Your task to perform on an android device: install app "Viber Messenger" Image 0: 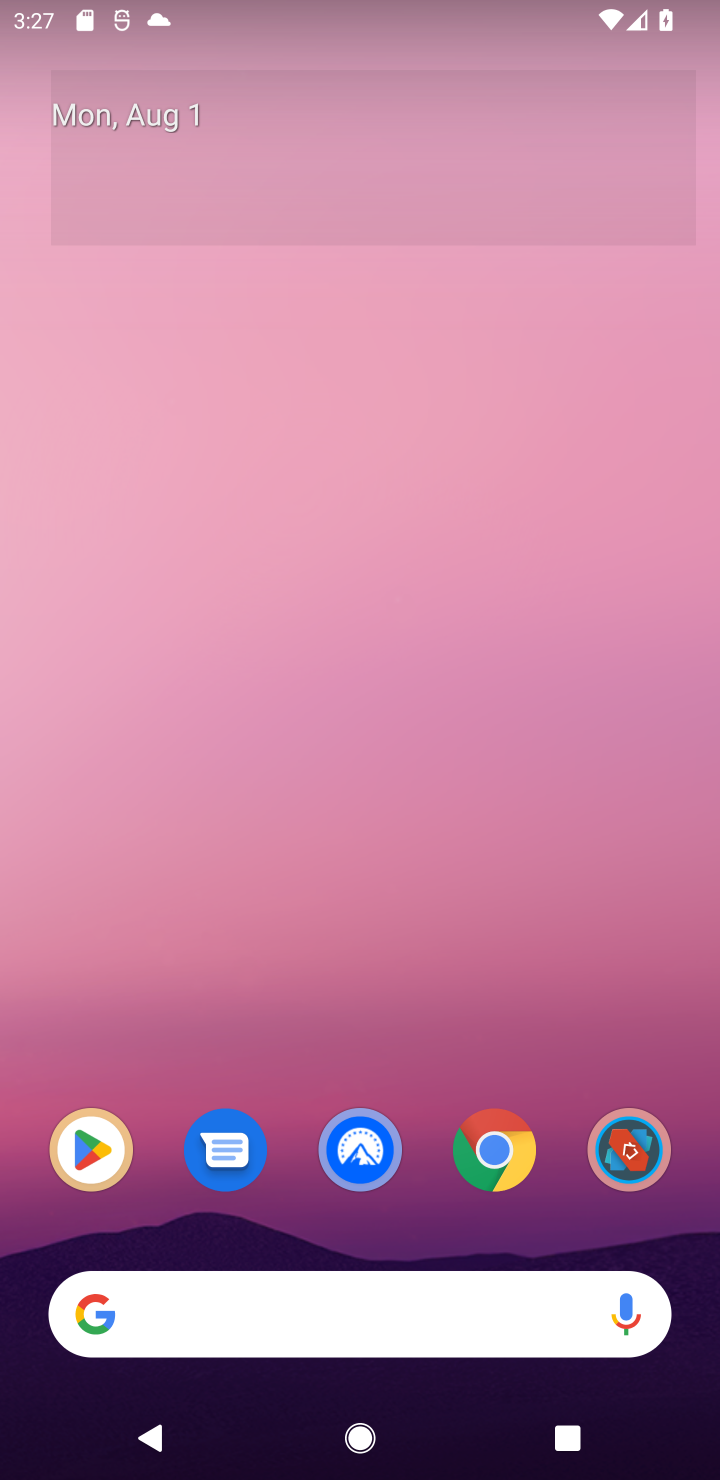
Step 0: click (76, 1146)
Your task to perform on an android device: install app "Viber Messenger" Image 1: 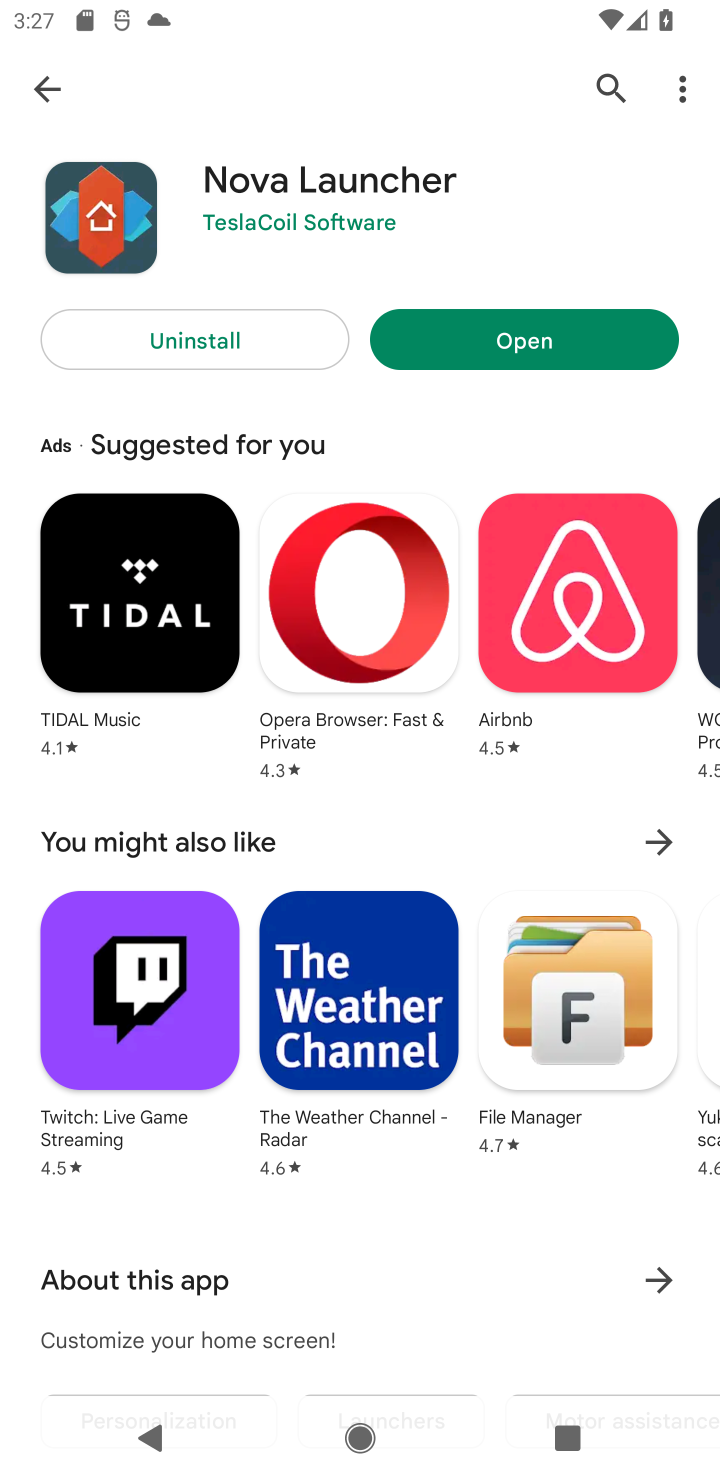
Step 1: click (108, 1153)
Your task to perform on an android device: install app "Viber Messenger" Image 2: 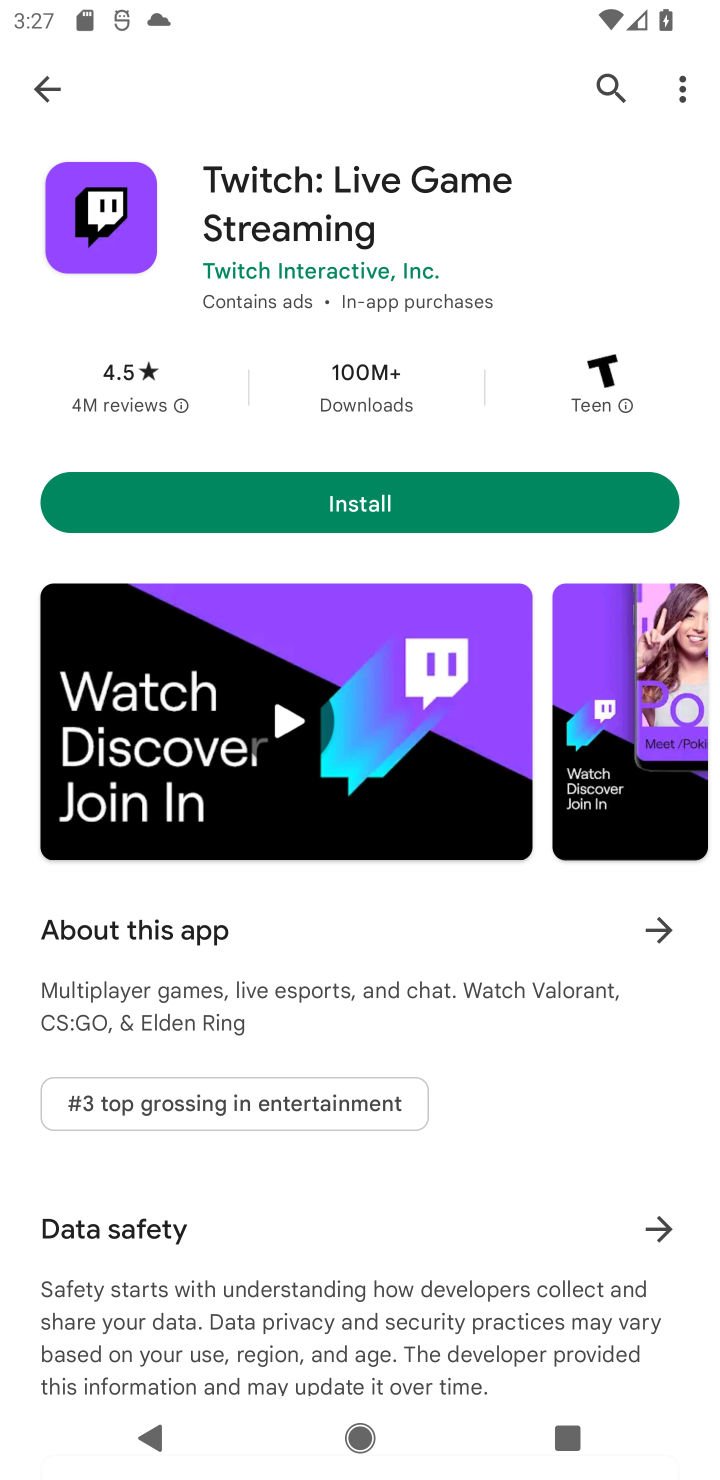
Step 2: click (61, 104)
Your task to perform on an android device: install app "Viber Messenger" Image 3: 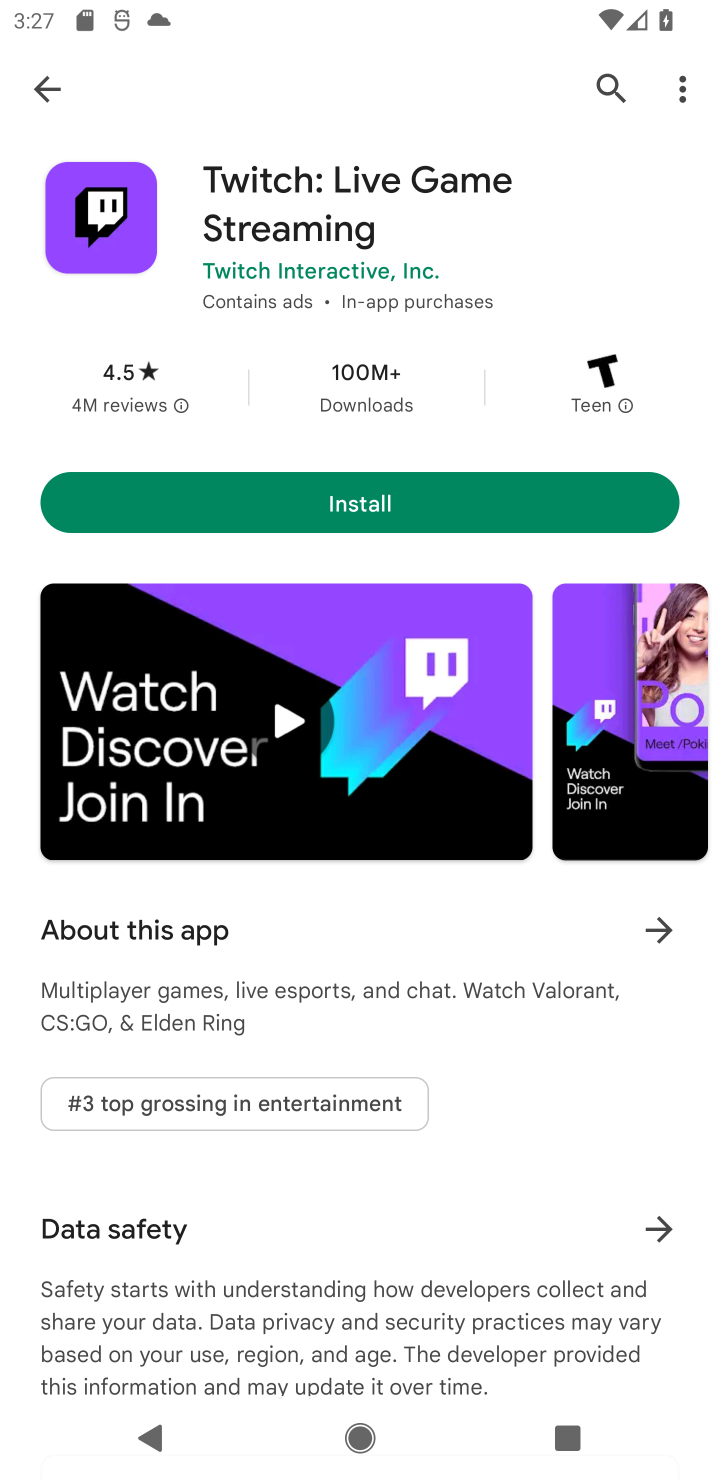
Step 3: click (593, 79)
Your task to perform on an android device: install app "Viber Messenger" Image 4: 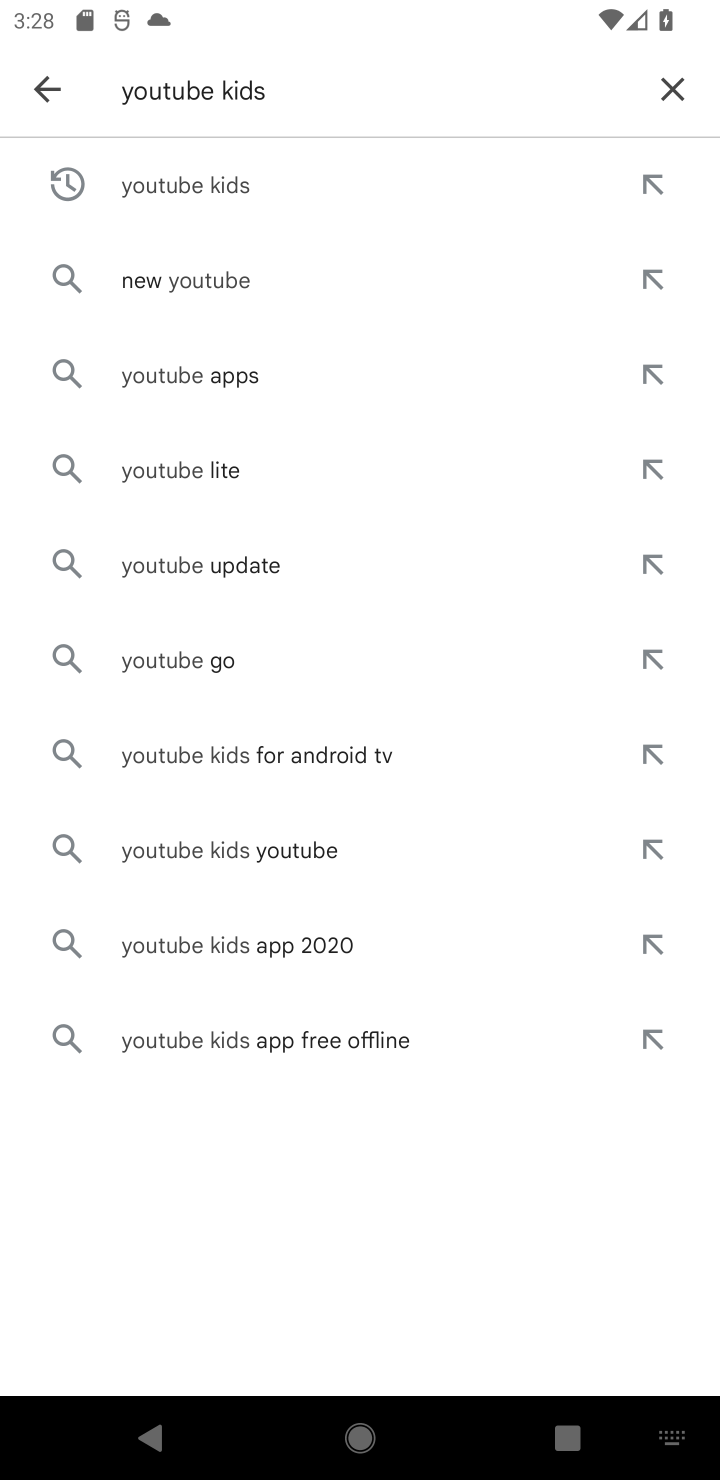
Step 4: click (671, 96)
Your task to perform on an android device: install app "Viber Messenger" Image 5: 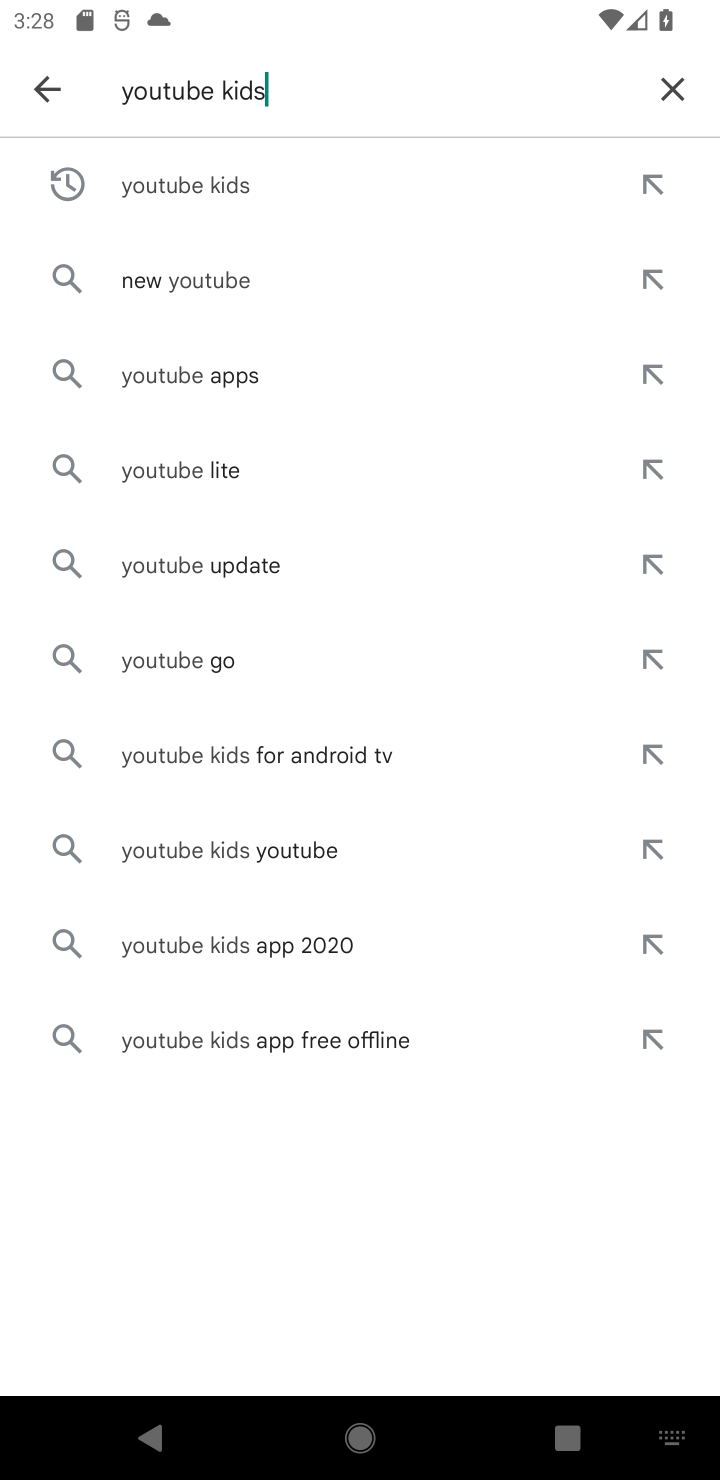
Step 5: type "vider"
Your task to perform on an android device: install app "Viber Messenger" Image 6: 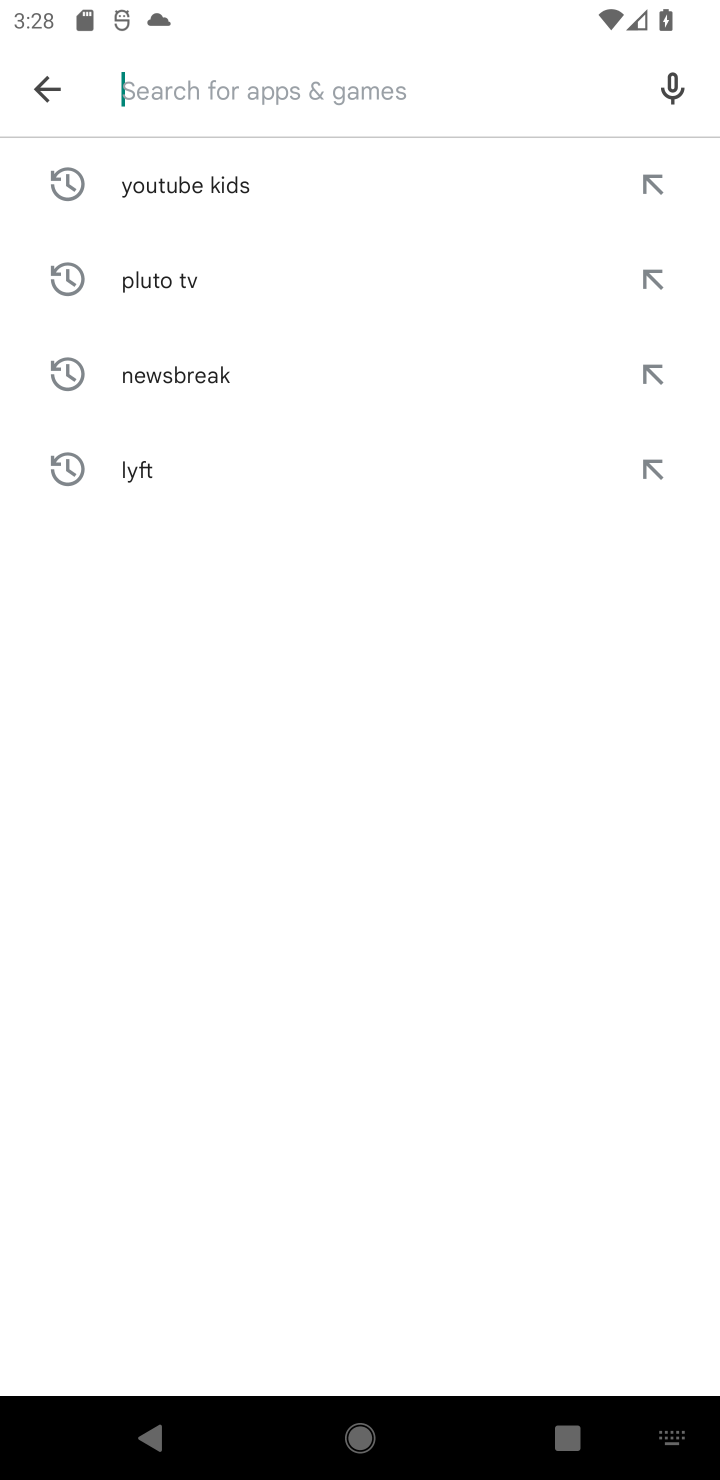
Step 6: type "viber"
Your task to perform on an android device: install app "Viber Messenger" Image 7: 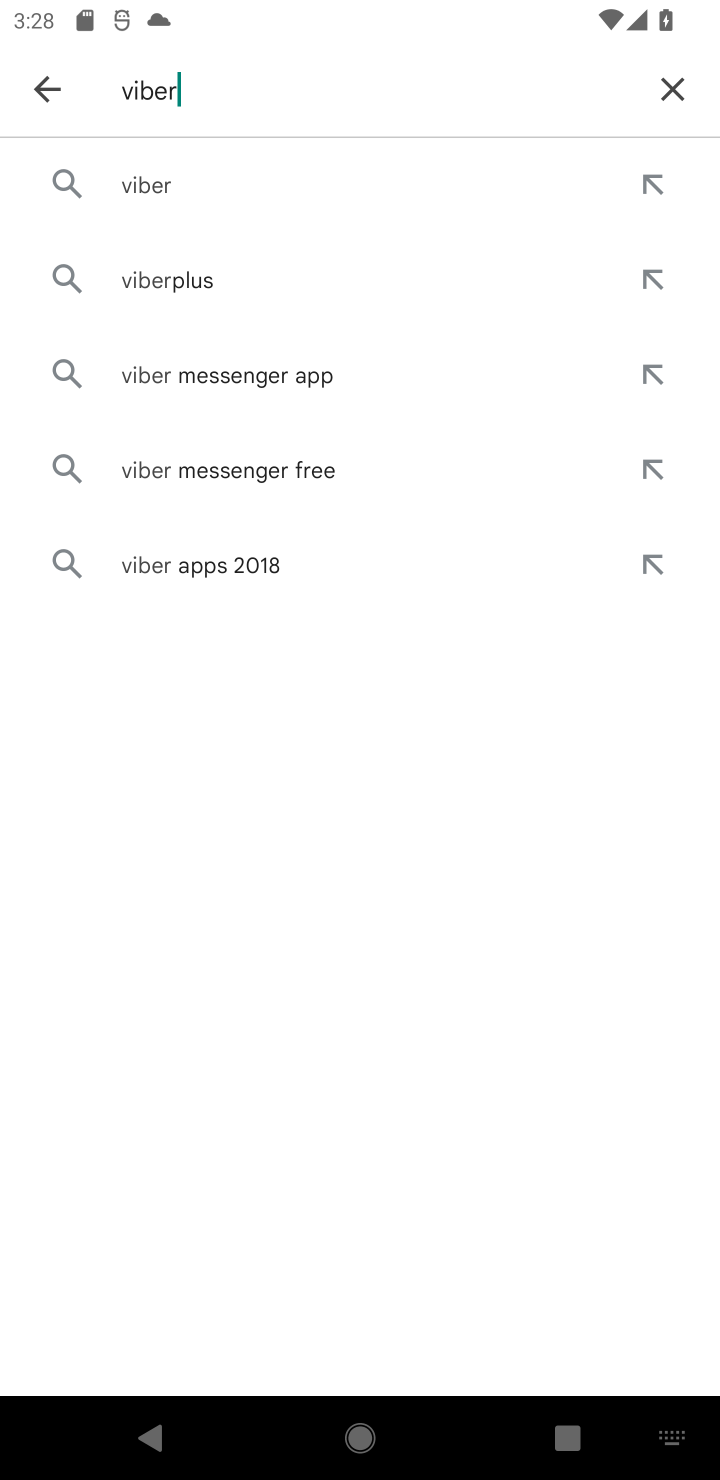
Step 7: click (162, 187)
Your task to perform on an android device: install app "Viber Messenger" Image 8: 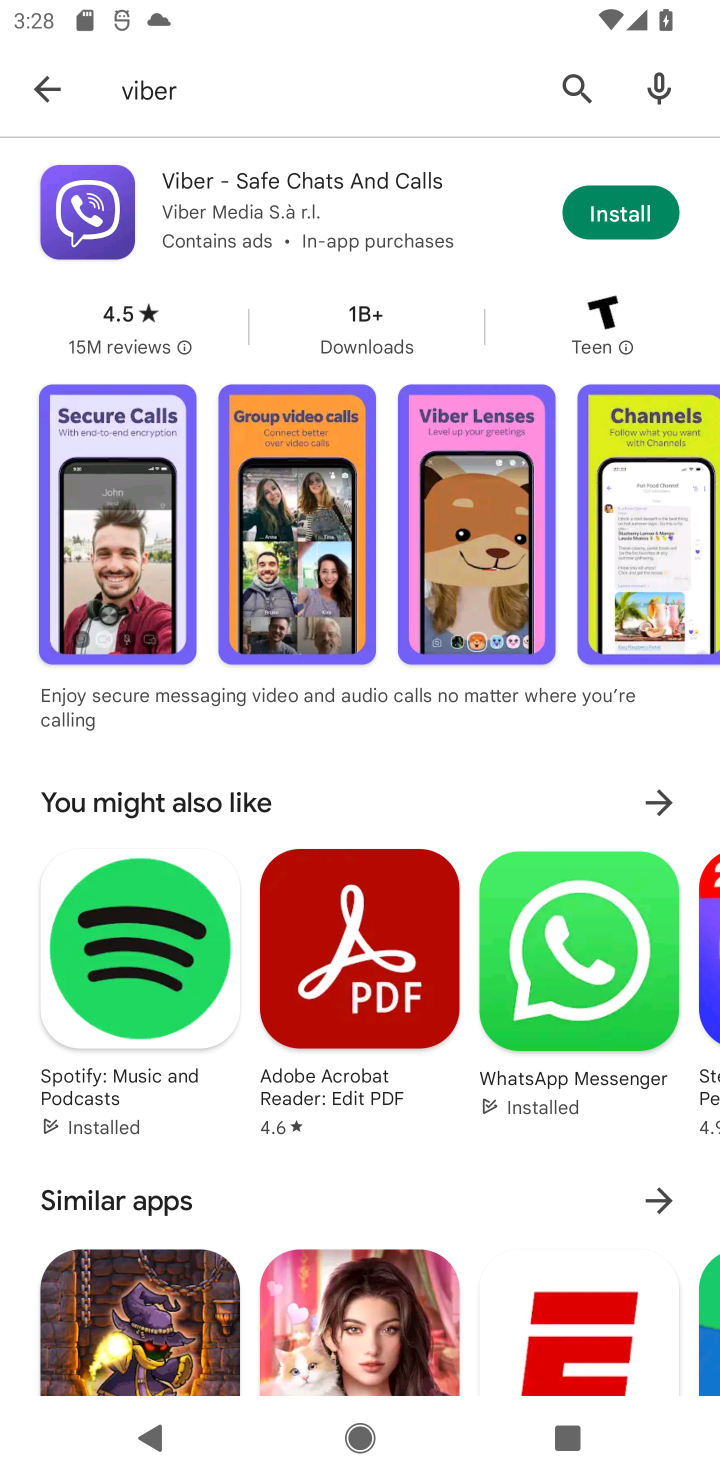
Step 8: click (630, 196)
Your task to perform on an android device: install app "Viber Messenger" Image 9: 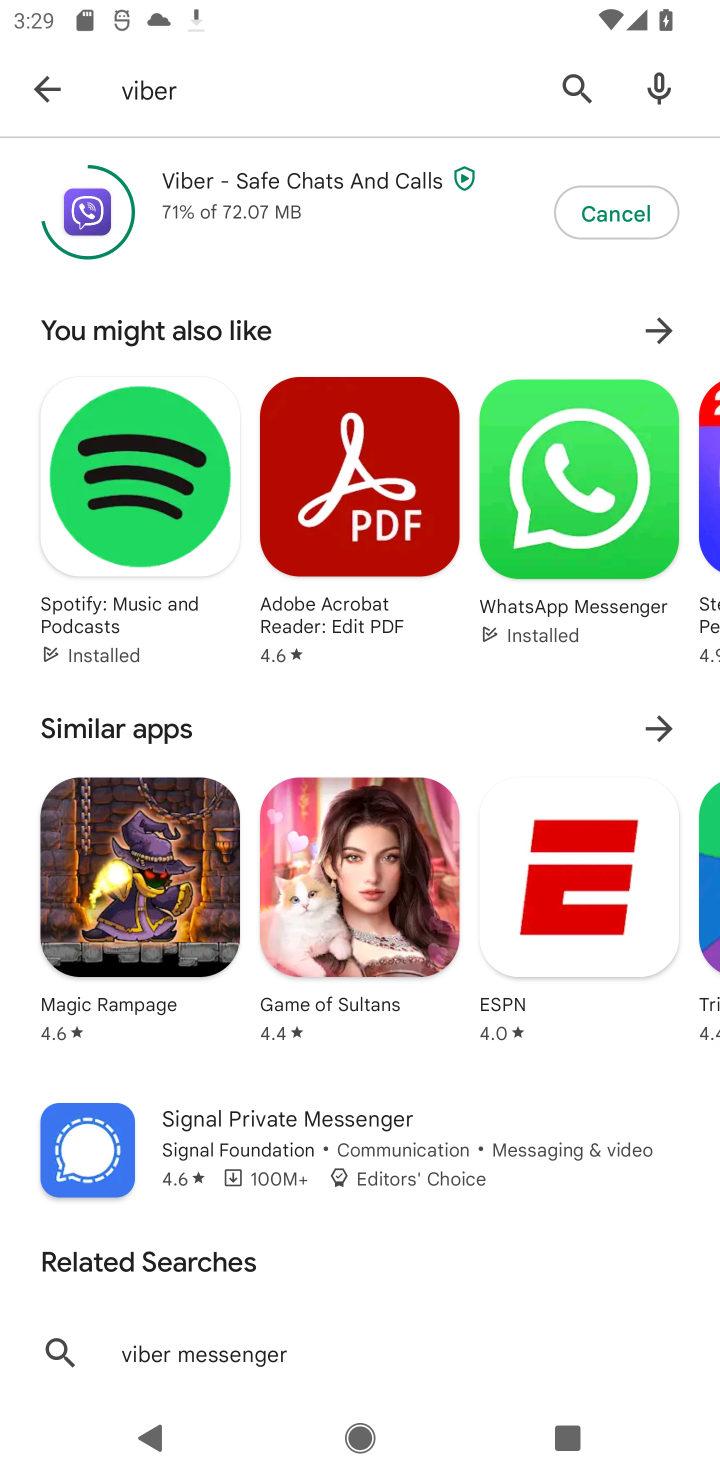
Step 9: task complete